Your task to perform on an android device: delete browsing data in the chrome app Image 0: 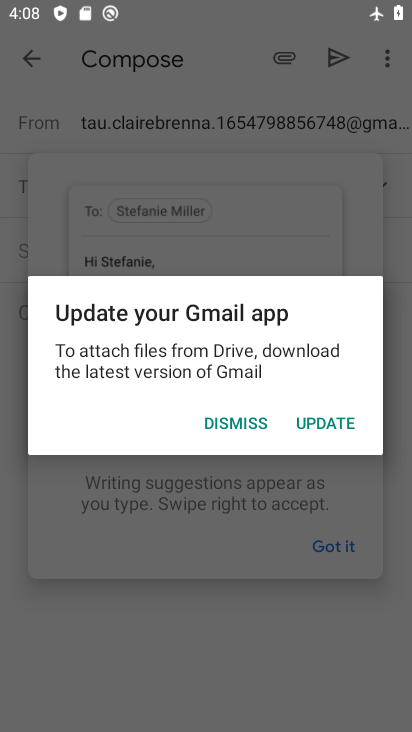
Step 0: press home button
Your task to perform on an android device: delete browsing data in the chrome app Image 1: 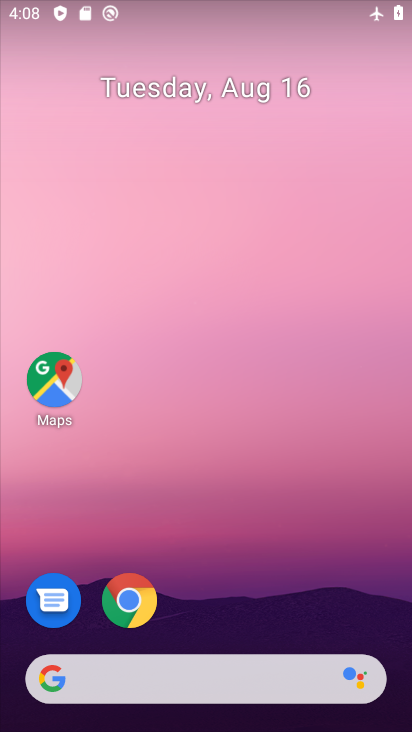
Step 1: click (126, 615)
Your task to perform on an android device: delete browsing data in the chrome app Image 2: 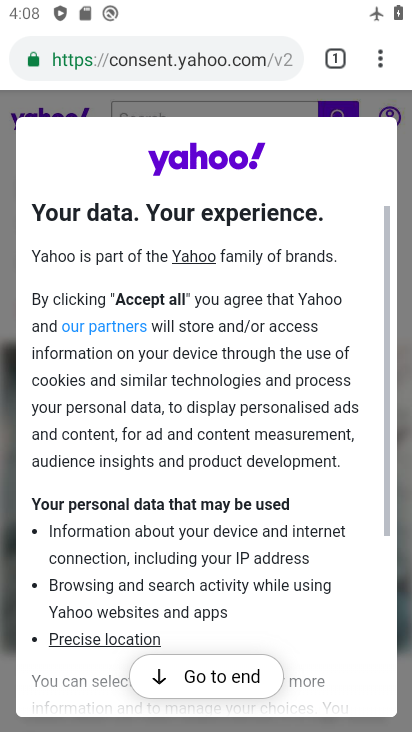
Step 2: click (381, 49)
Your task to perform on an android device: delete browsing data in the chrome app Image 3: 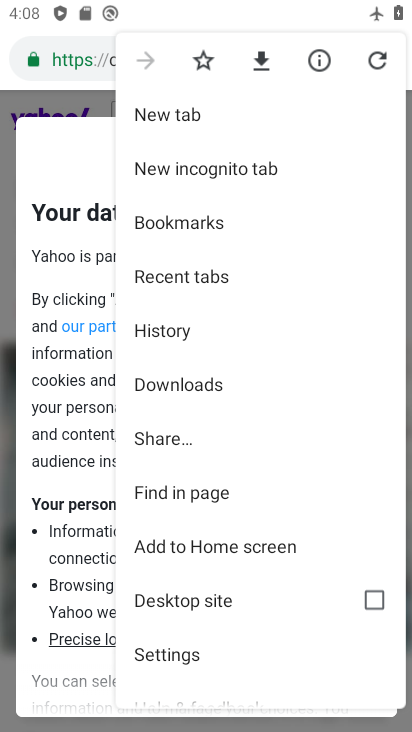
Step 3: click (190, 329)
Your task to perform on an android device: delete browsing data in the chrome app Image 4: 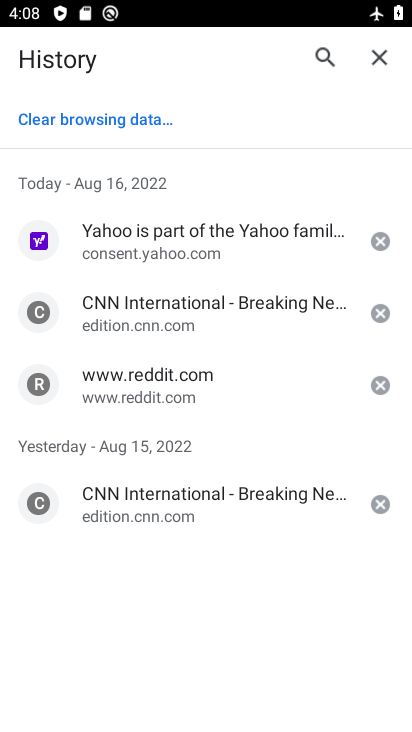
Step 4: click (128, 121)
Your task to perform on an android device: delete browsing data in the chrome app Image 5: 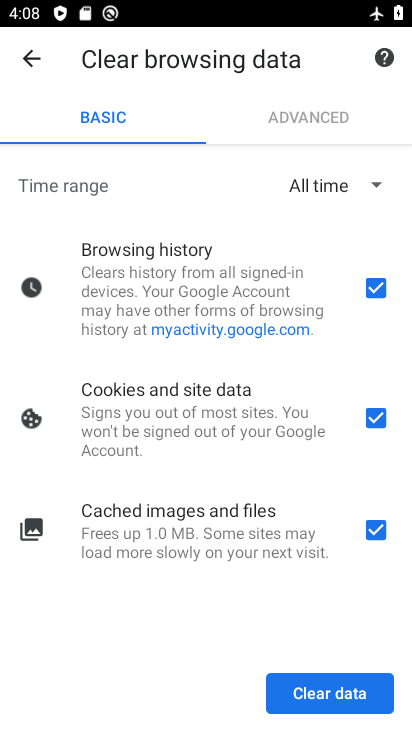
Step 5: click (321, 693)
Your task to perform on an android device: delete browsing data in the chrome app Image 6: 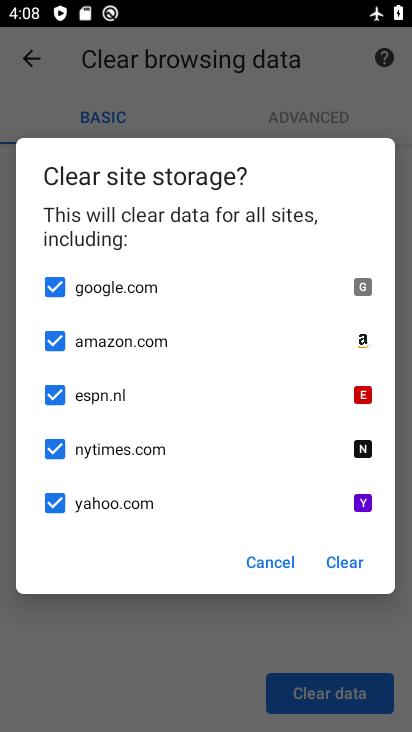
Step 6: click (335, 558)
Your task to perform on an android device: delete browsing data in the chrome app Image 7: 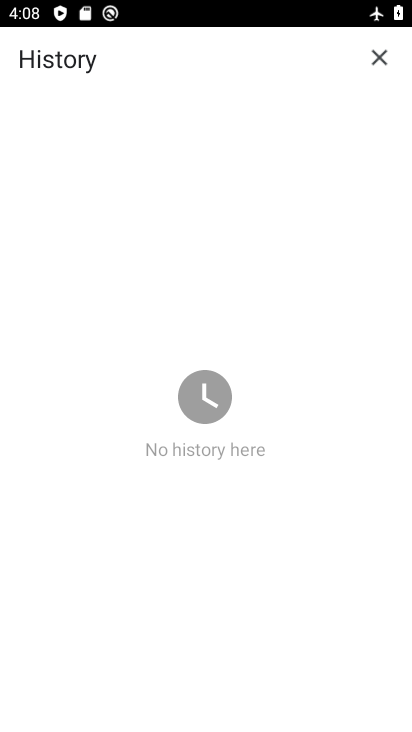
Step 7: task complete